Your task to perform on an android device: Go to notification settings Image 0: 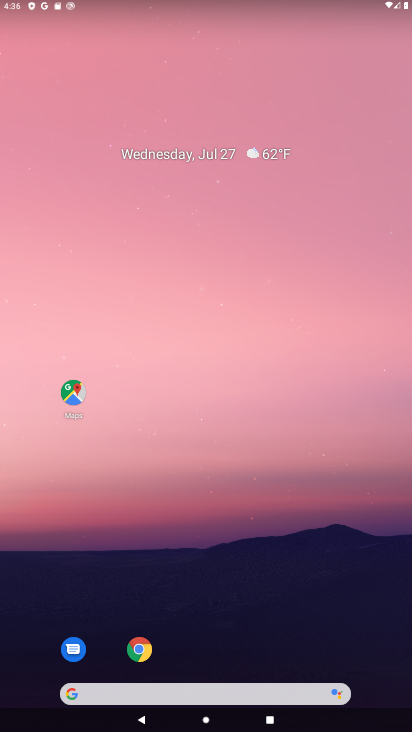
Step 0: drag from (251, 559) to (173, 128)
Your task to perform on an android device: Go to notification settings Image 1: 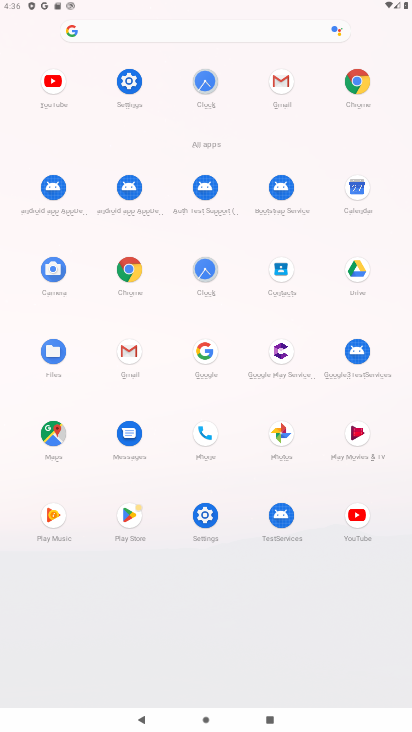
Step 1: click (209, 519)
Your task to perform on an android device: Go to notification settings Image 2: 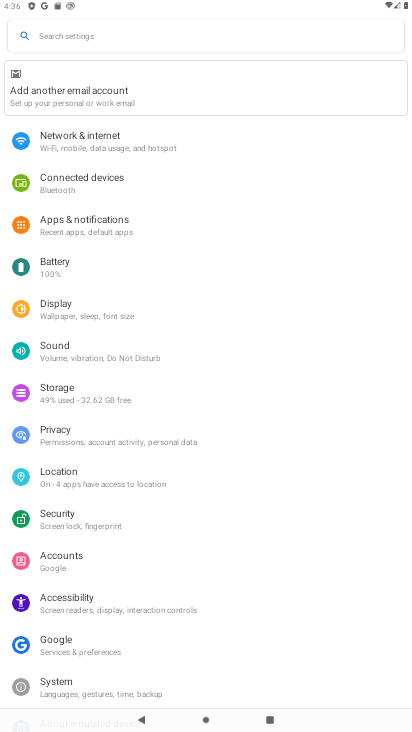
Step 2: click (111, 224)
Your task to perform on an android device: Go to notification settings Image 3: 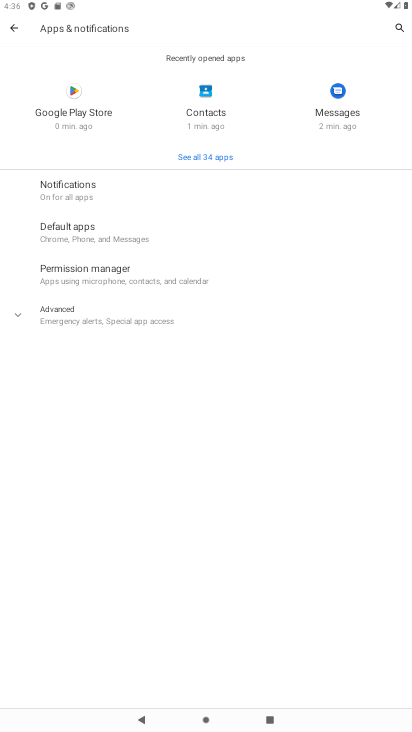
Step 3: task complete